Your task to perform on an android device: Open Reddit.com Image 0: 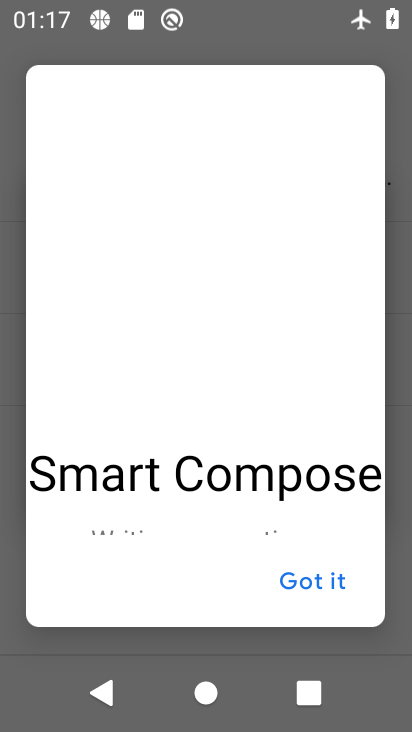
Step 0: press home button
Your task to perform on an android device: Open Reddit.com Image 1: 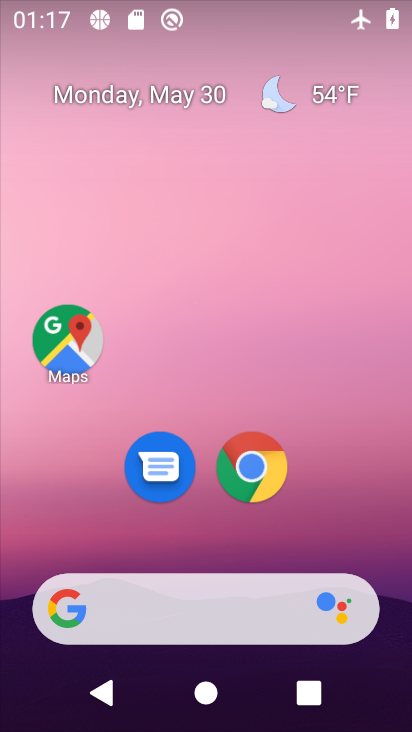
Step 1: drag from (214, 557) to (223, 0)
Your task to perform on an android device: Open Reddit.com Image 2: 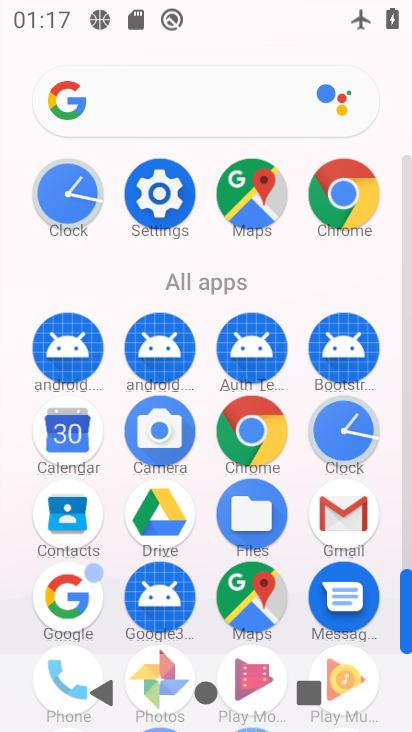
Step 2: click (339, 191)
Your task to perform on an android device: Open Reddit.com Image 3: 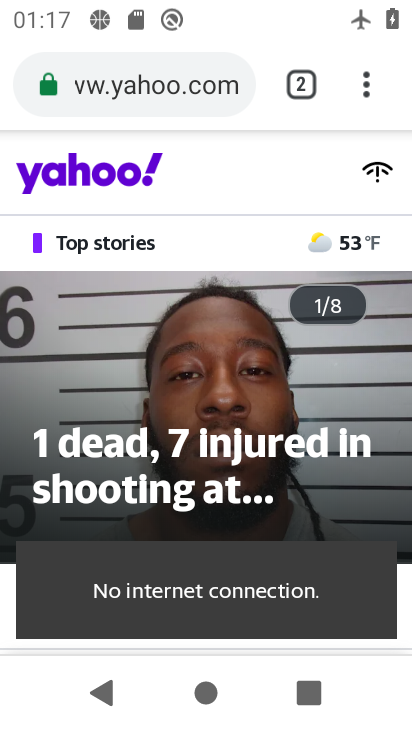
Step 3: click (308, 73)
Your task to perform on an android device: Open Reddit.com Image 4: 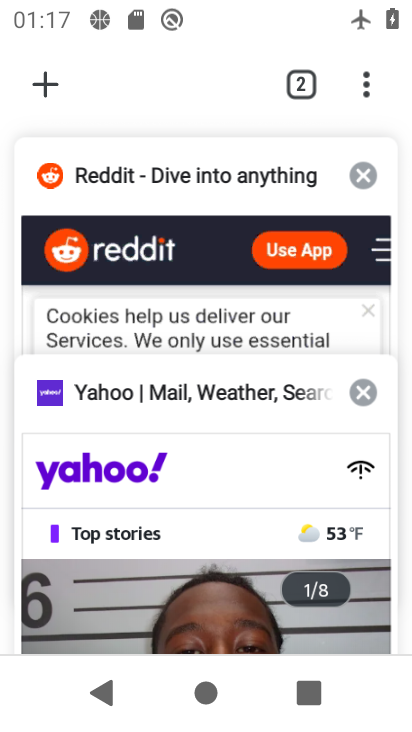
Step 4: click (251, 253)
Your task to perform on an android device: Open Reddit.com Image 5: 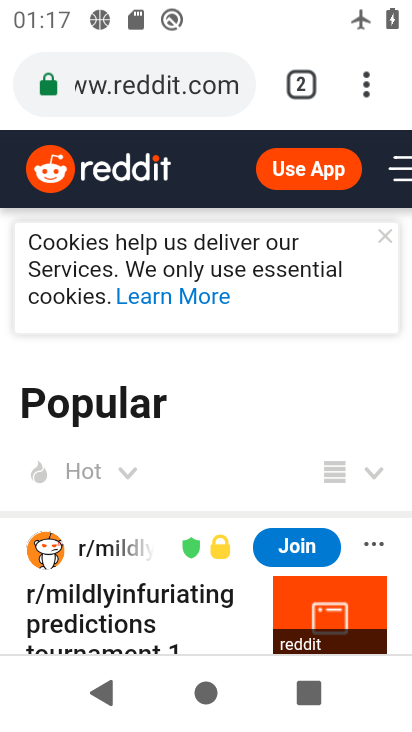
Step 5: task complete